Your task to perform on an android device: Go to eBay Image 0: 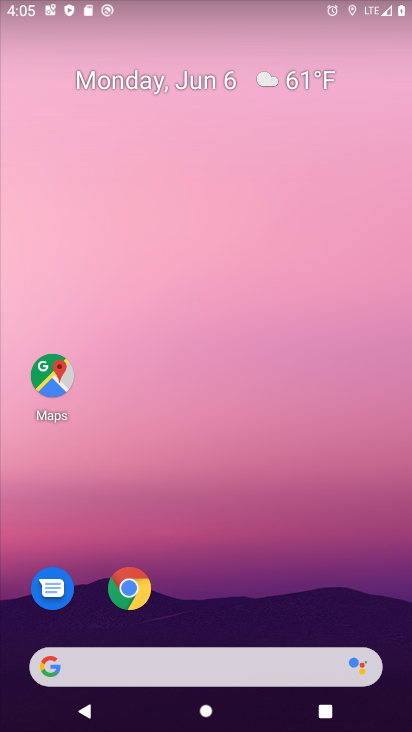
Step 0: click (127, 596)
Your task to perform on an android device: Go to eBay Image 1: 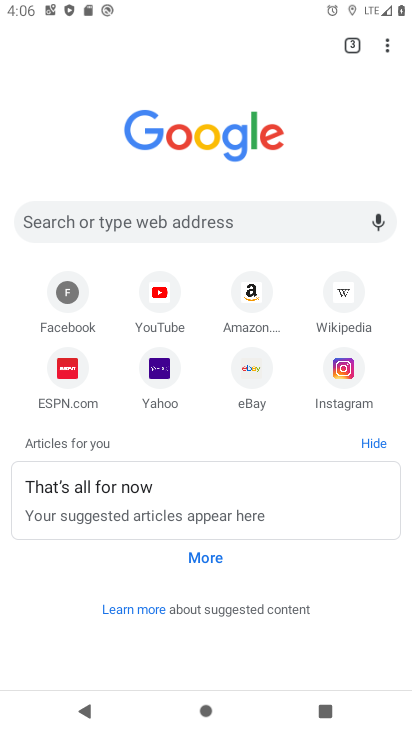
Step 1: click (262, 364)
Your task to perform on an android device: Go to eBay Image 2: 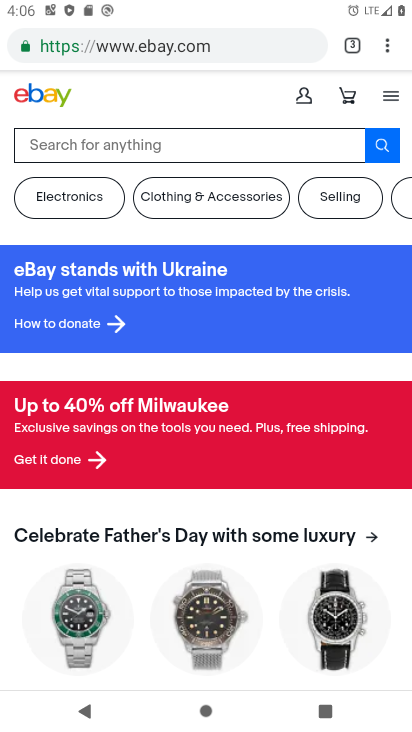
Step 2: task complete